Your task to perform on an android device: What's on my calendar tomorrow? Image 0: 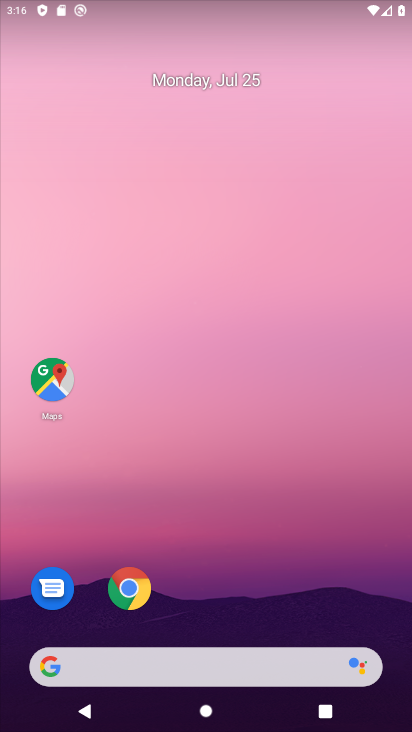
Step 0: drag from (309, 601) to (169, 128)
Your task to perform on an android device: What's on my calendar tomorrow? Image 1: 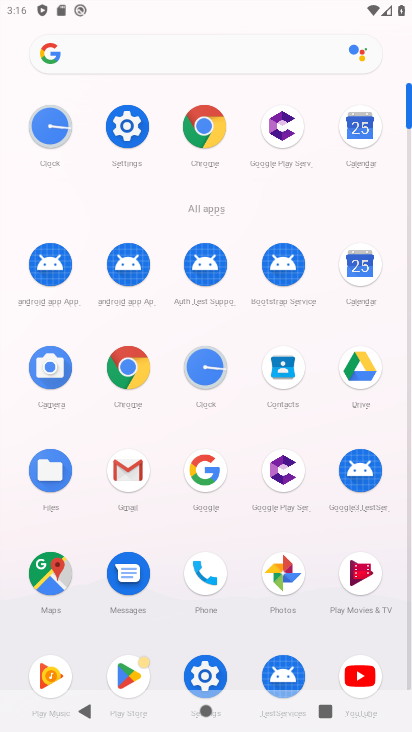
Step 1: click (362, 252)
Your task to perform on an android device: What's on my calendar tomorrow? Image 2: 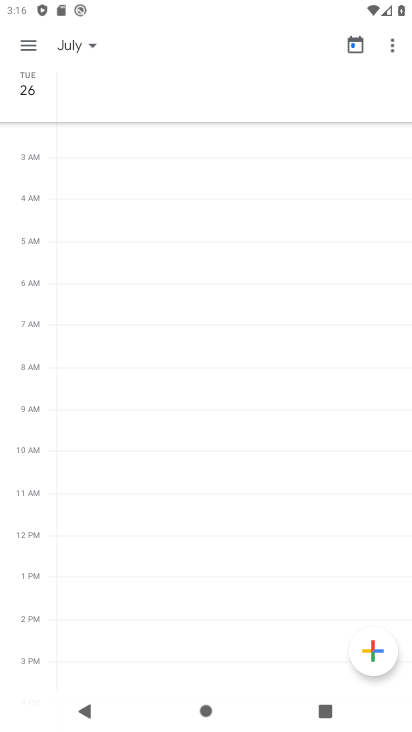
Step 2: click (33, 40)
Your task to perform on an android device: What's on my calendar tomorrow? Image 3: 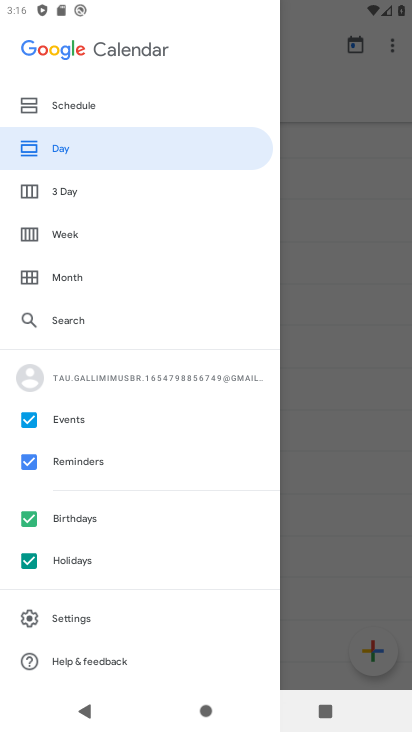
Step 3: click (153, 144)
Your task to perform on an android device: What's on my calendar tomorrow? Image 4: 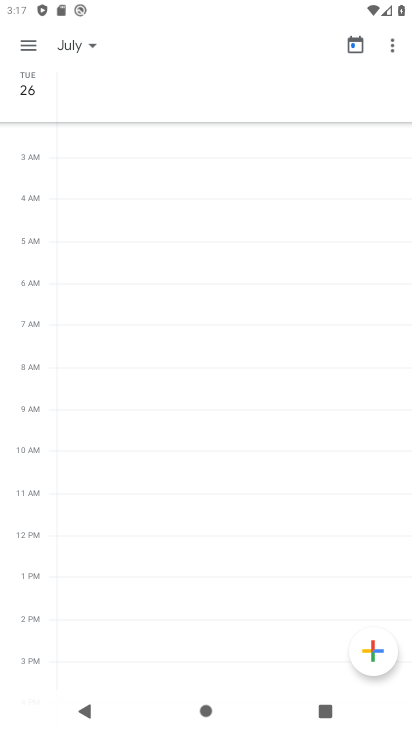
Step 4: click (85, 47)
Your task to perform on an android device: What's on my calendar tomorrow? Image 5: 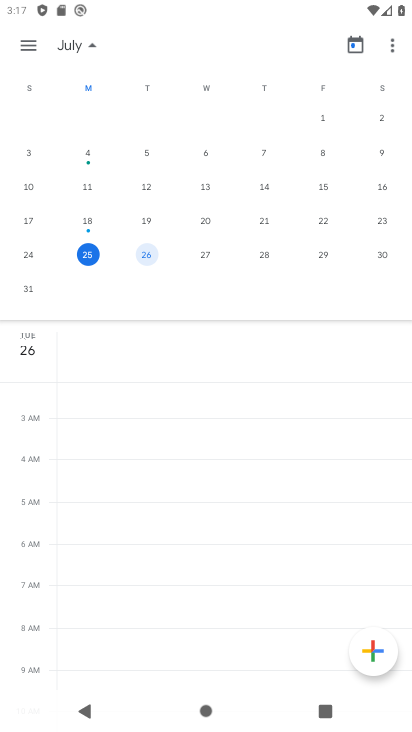
Step 5: click (143, 254)
Your task to perform on an android device: What's on my calendar tomorrow? Image 6: 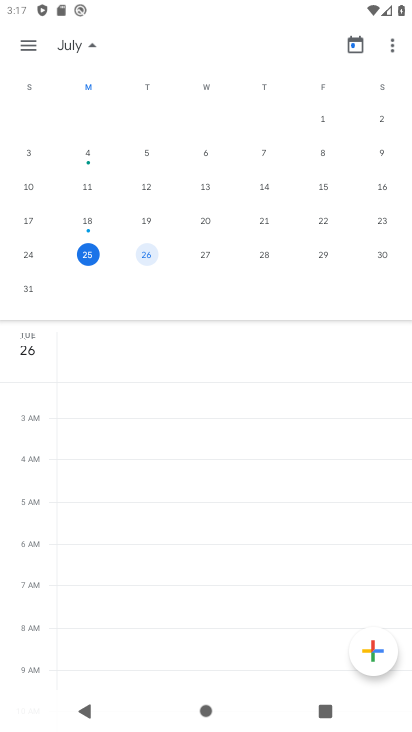
Step 6: task complete